Your task to perform on an android device: turn on sleep mode Image 0: 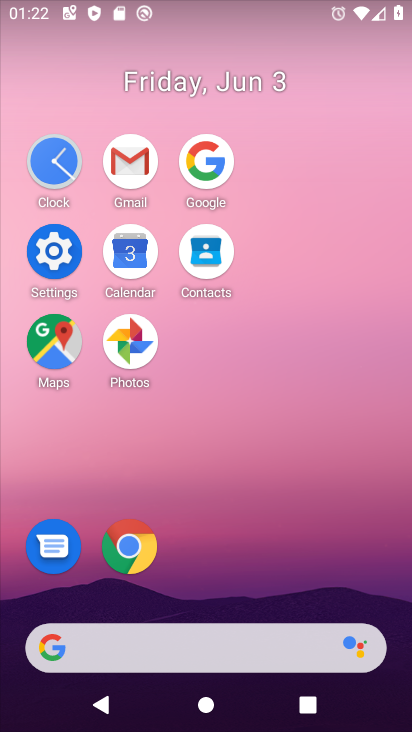
Step 0: click (56, 239)
Your task to perform on an android device: turn on sleep mode Image 1: 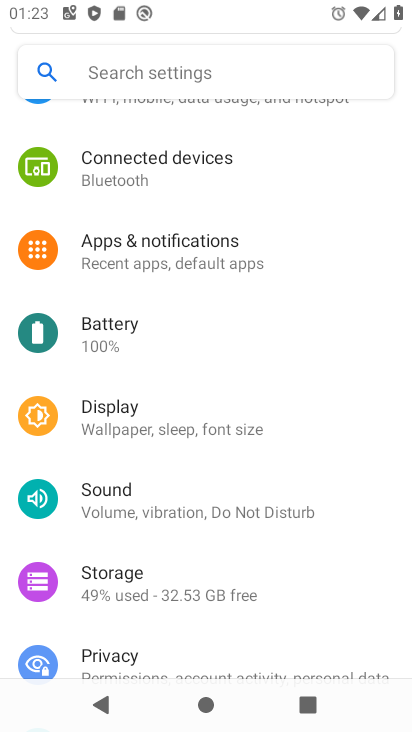
Step 1: click (219, 426)
Your task to perform on an android device: turn on sleep mode Image 2: 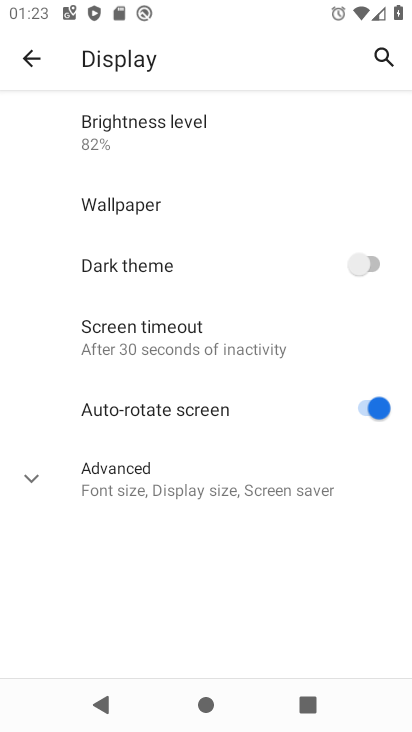
Step 2: click (197, 330)
Your task to perform on an android device: turn on sleep mode Image 3: 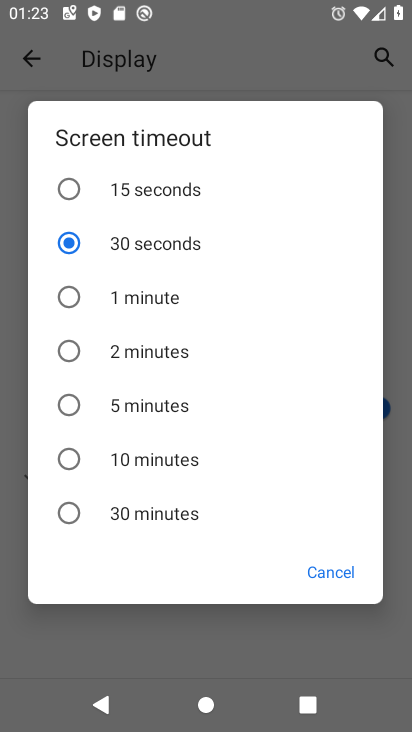
Step 3: task complete